Your task to perform on an android device: Open calendar and show me the fourth week of next month Image 0: 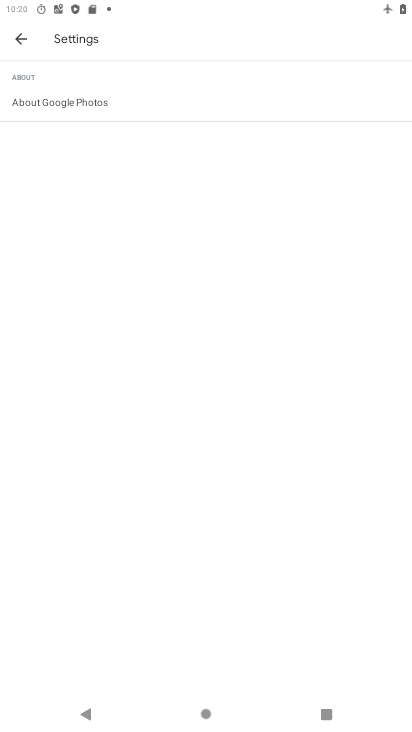
Step 0: press home button
Your task to perform on an android device: Open calendar and show me the fourth week of next month Image 1: 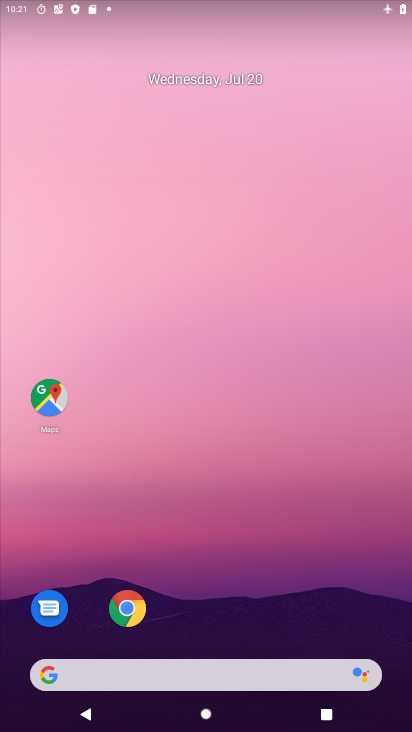
Step 1: drag from (243, 715) to (358, 113)
Your task to perform on an android device: Open calendar and show me the fourth week of next month Image 2: 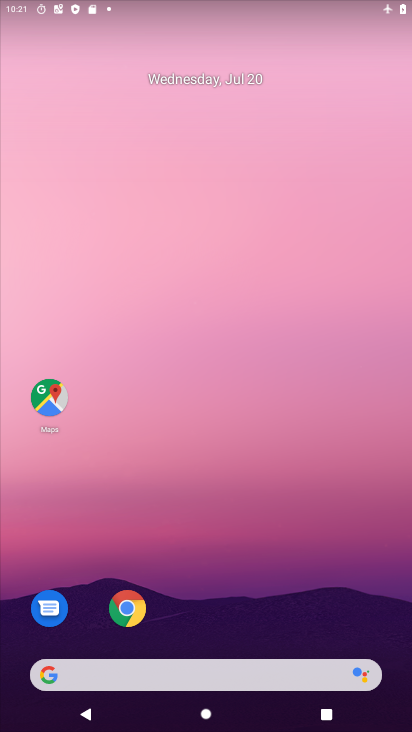
Step 2: drag from (282, 703) to (411, 185)
Your task to perform on an android device: Open calendar and show me the fourth week of next month Image 3: 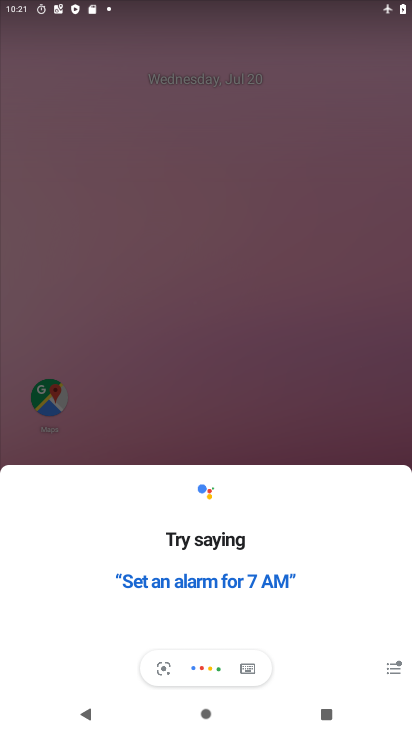
Step 3: press home button
Your task to perform on an android device: Open calendar and show me the fourth week of next month Image 4: 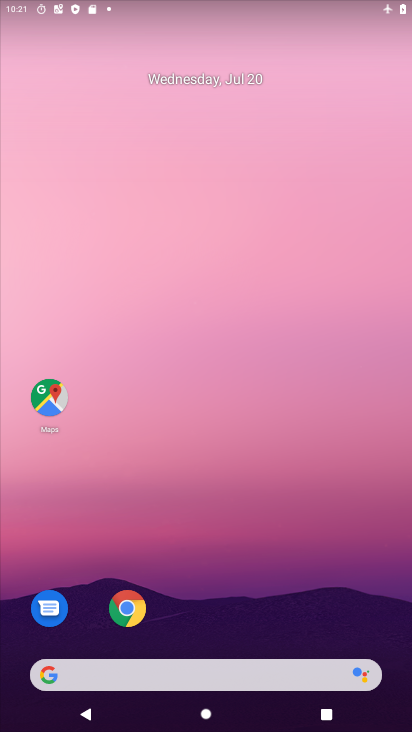
Step 4: drag from (228, 653) to (340, 300)
Your task to perform on an android device: Open calendar and show me the fourth week of next month Image 5: 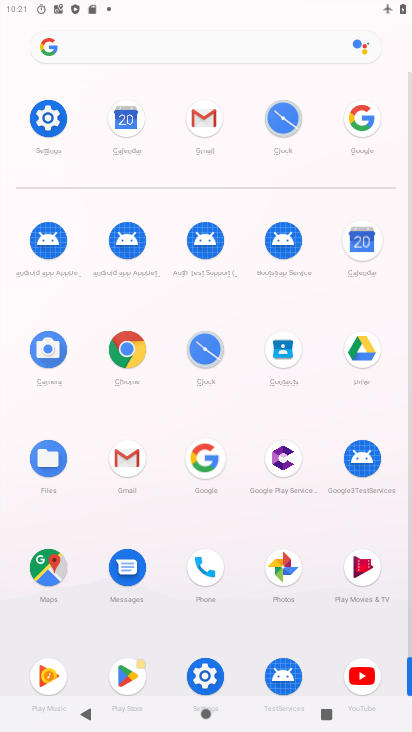
Step 5: click (363, 272)
Your task to perform on an android device: Open calendar and show me the fourth week of next month Image 6: 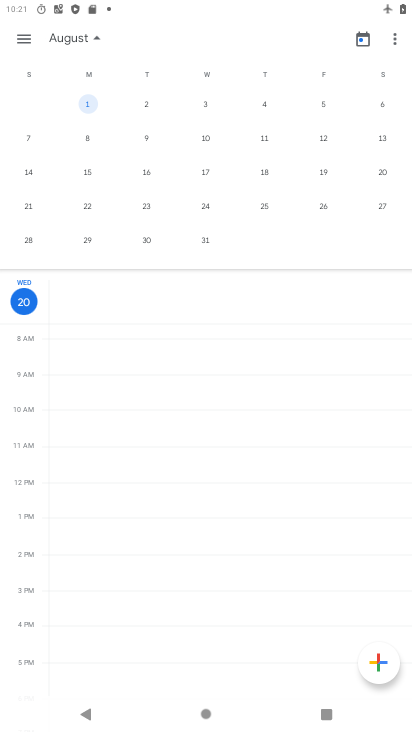
Step 6: click (29, 202)
Your task to perform on an android device: Open calendar and show me the fourth week of next month Image 7: 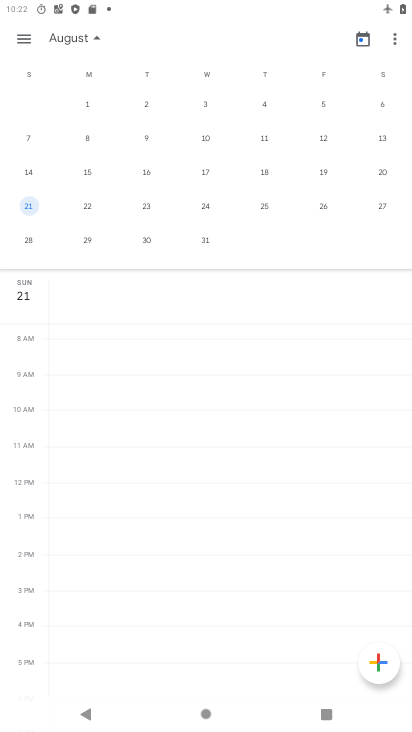
Step 7: task complete